Your task to perform on an android device: Toggle the flashlight Image 0: 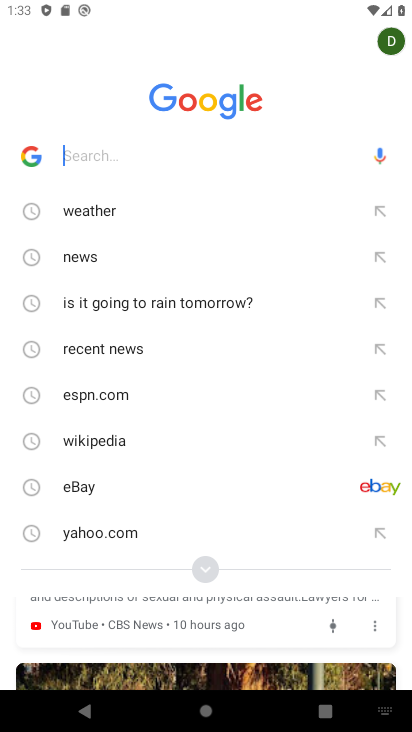
Step 0: press home button
Your task to perform on an android device: Toggle the flashlight Image 1: 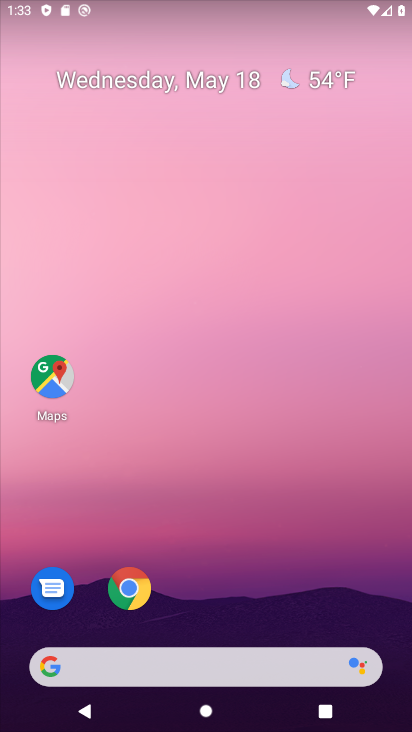
Step 1: task complete